Your task to perform on an android device: Open the stopwatch Image 0: 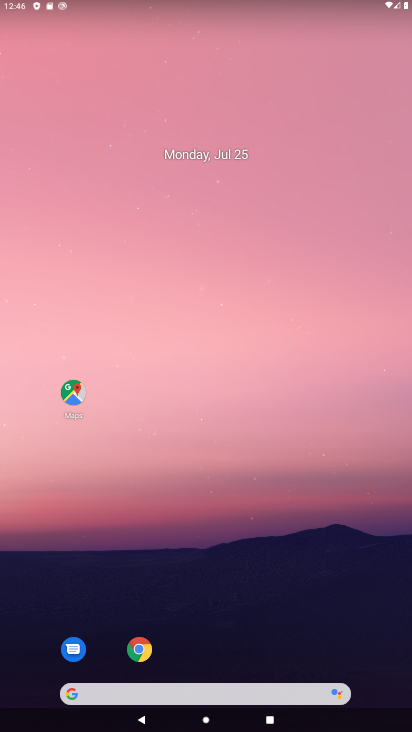
Step 0: press home button
Your task to perform on an android device: Open the stopwatch Image 1: 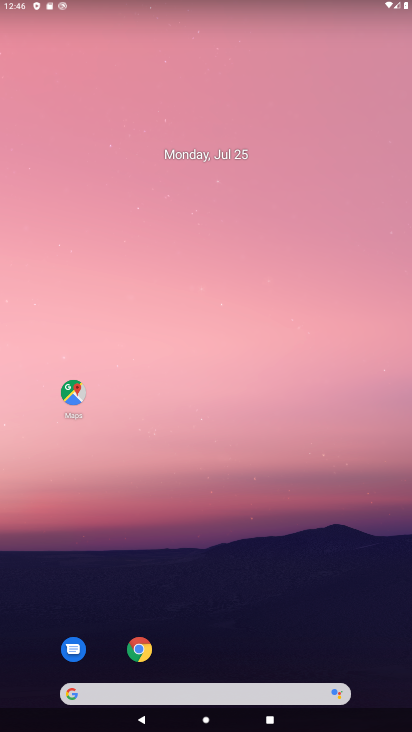
Step 1: drag from (276, 510) to (277, 100)
Your task to perform on an android device: Open the stopwatch Image 2: 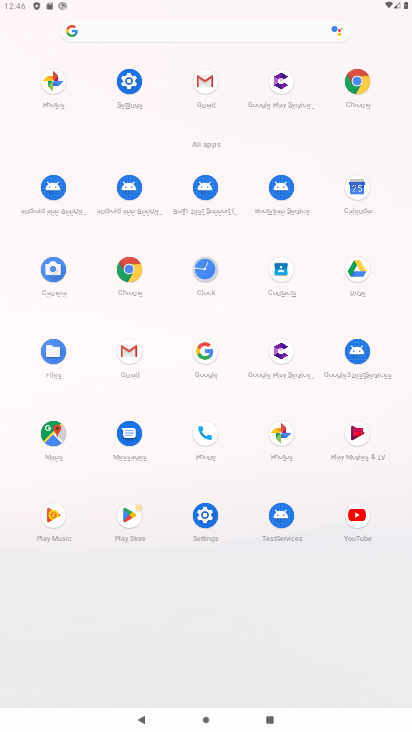
Step 2: click (196, 262)
Your task to perform on an android device: Open the stopwatch Image 3: 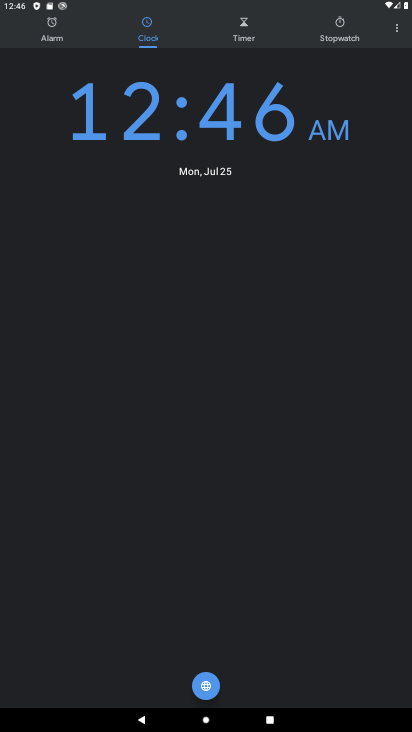
Step 3: click (340, 20)
Your task to perform on an android device: Open the stopwatch Image 4: 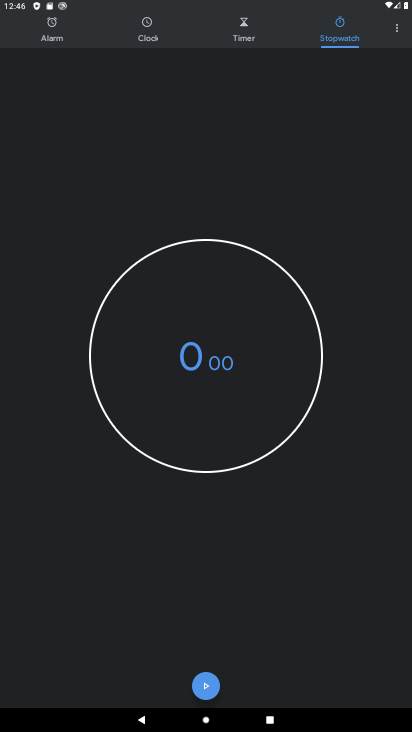
Step 4: task complete